Your task to perform on an android device: open app "DoorDash - Dasher" Image 0: 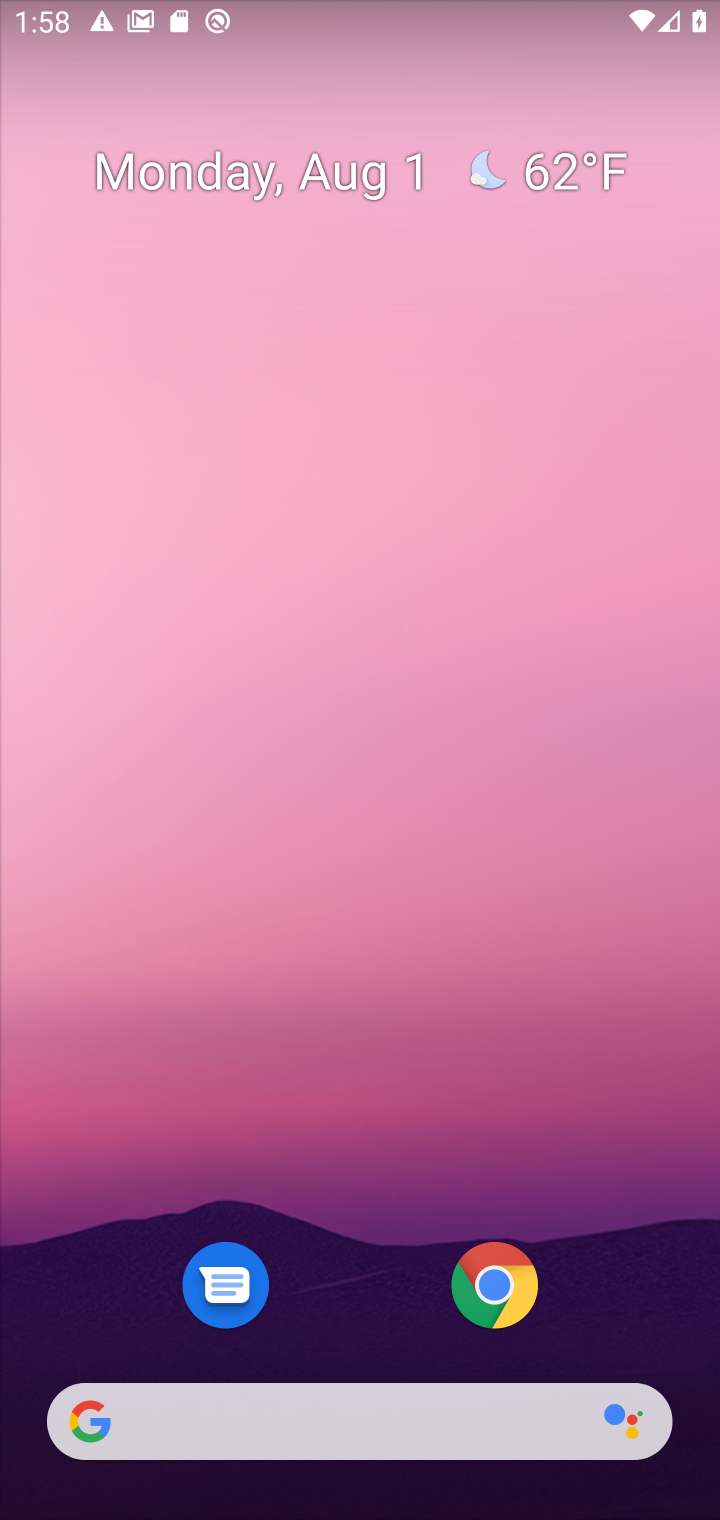
Step 0: press home button
Your task to perform on an android device: open app "DoorDash - Dasher" Image 1: 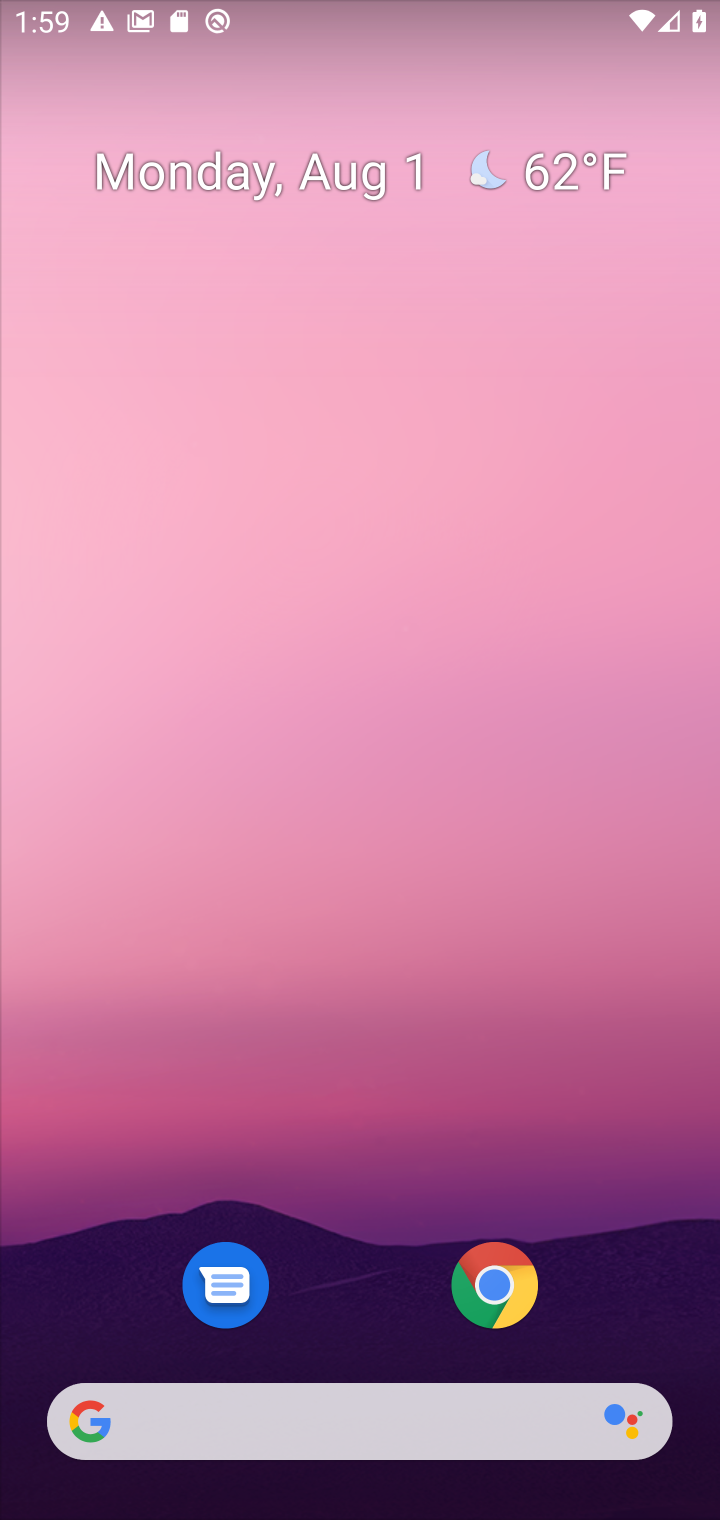
Step 1: drag from (288, 1364) to (390, 297)
Your task to perform on an android device: open app "DoorDash - Dasher" Image 2: 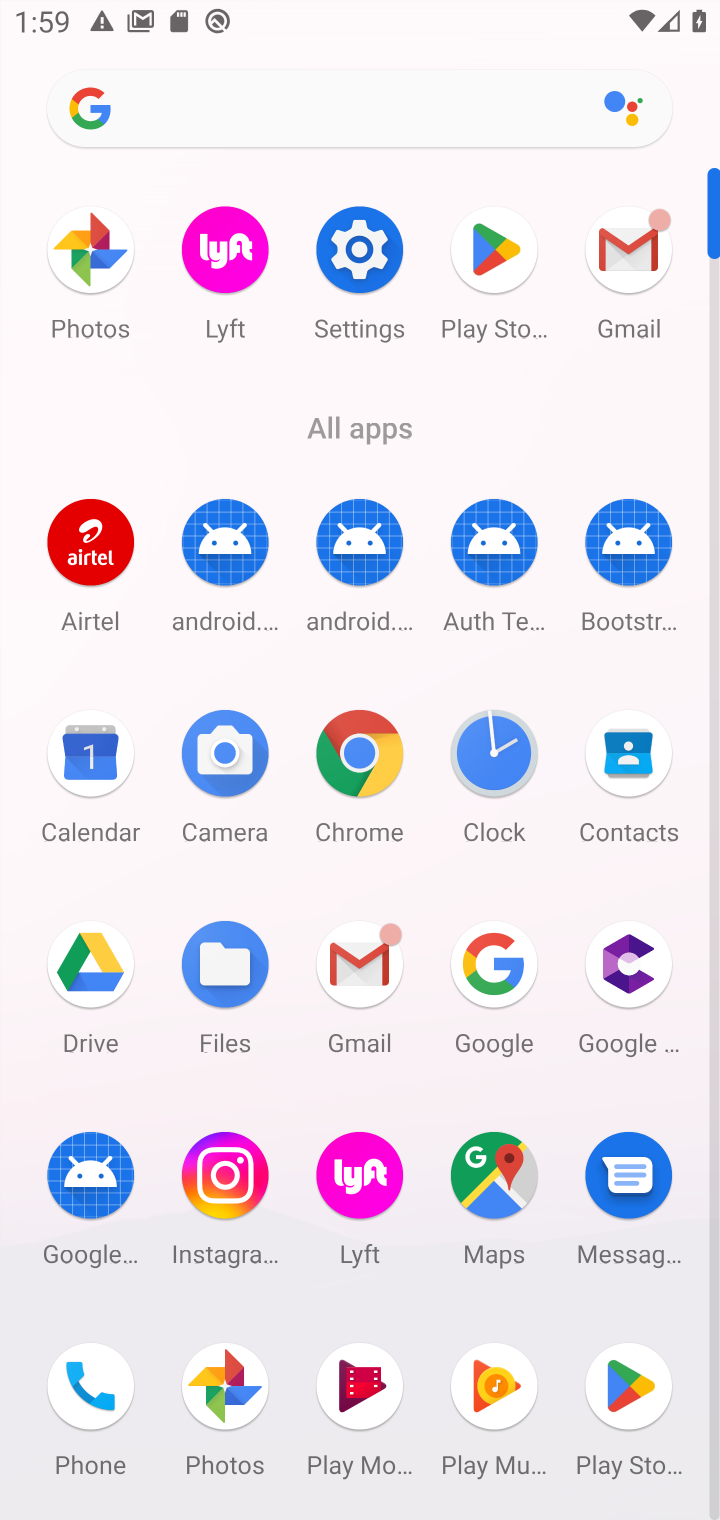
Step 2: click (497, 247)
Your task to perform on an android device: open app "DoorDash - Dasher" Image 3: 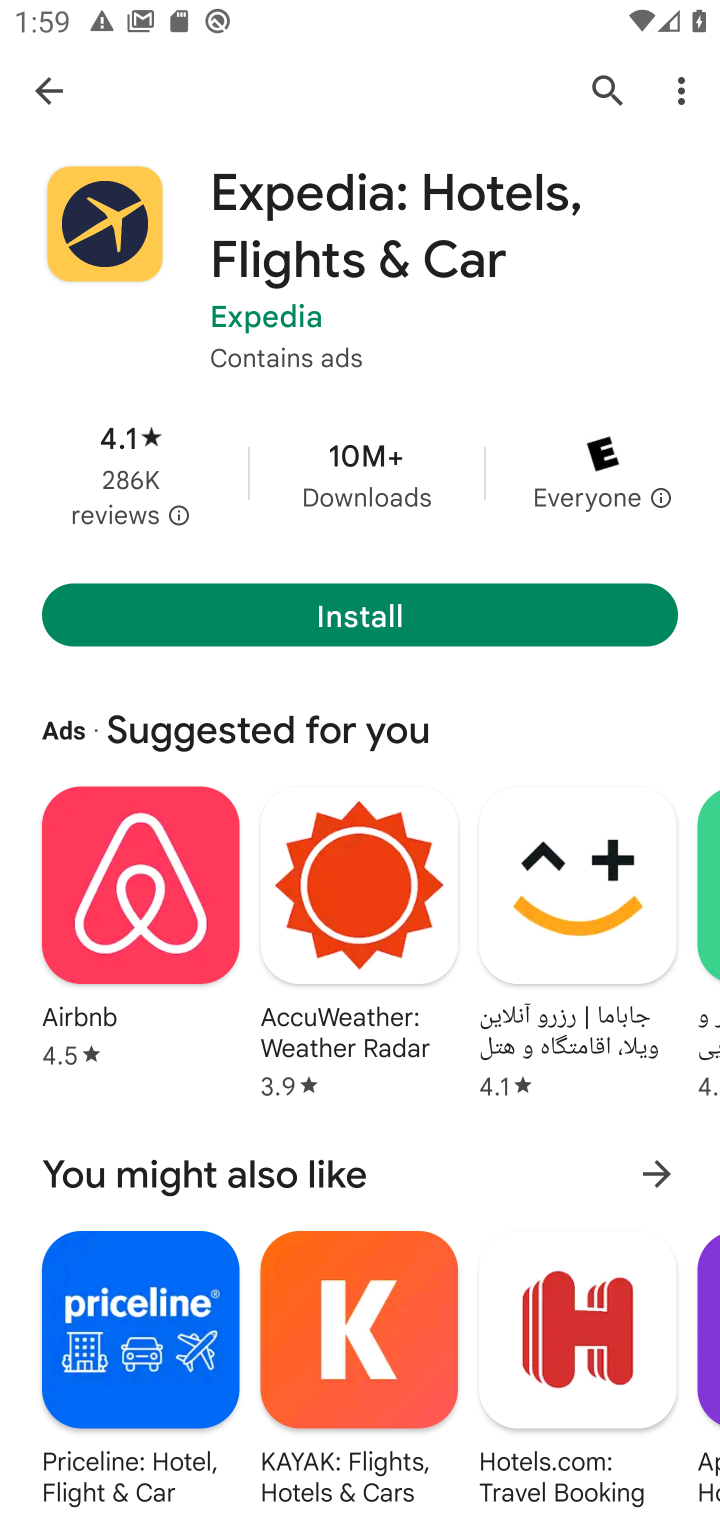
Step 3: click (44, 110)
Your task to perform on an android device: open app "DoorDash - Dasher" Image 4: 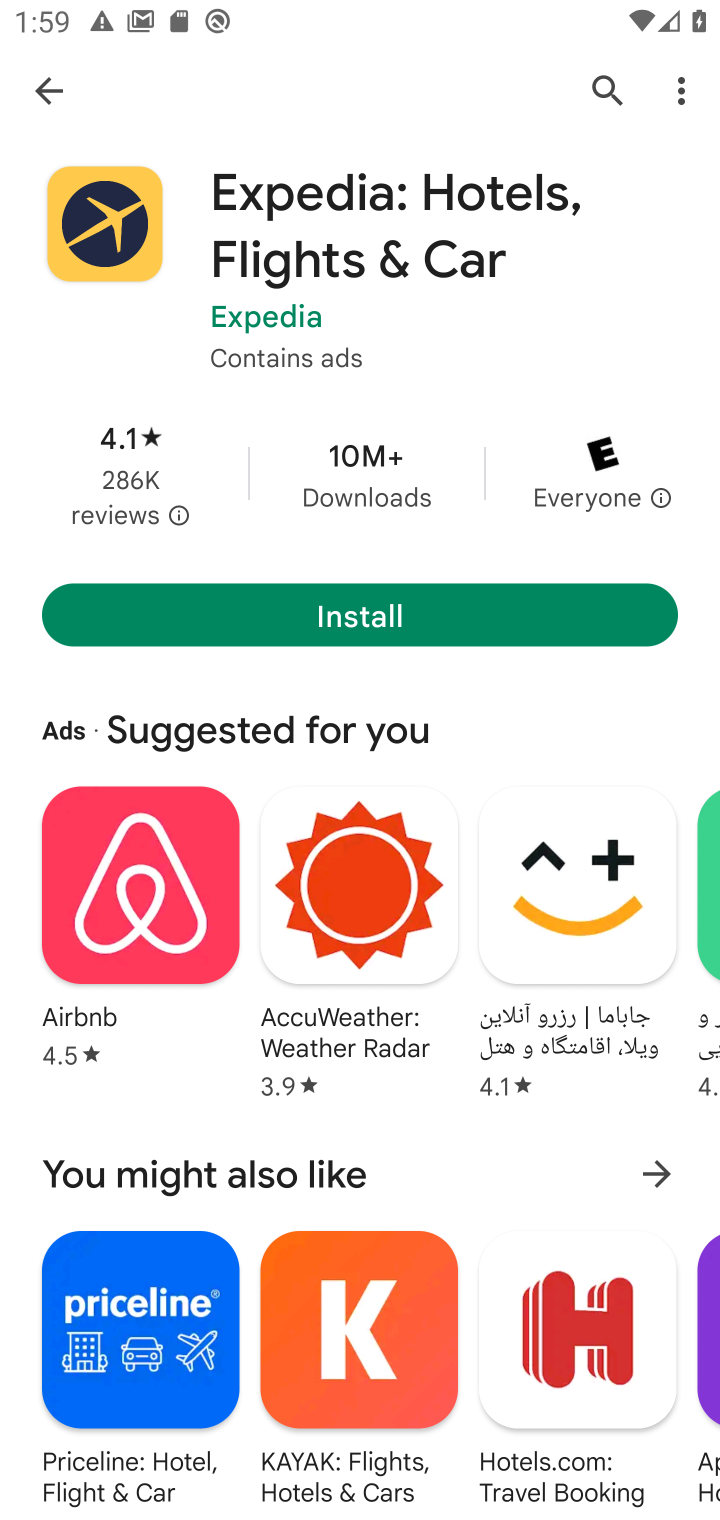
Step 4: click (45, 88)
Your task to perform on an android device: open app "DoorDash - Dasher" Image 5: 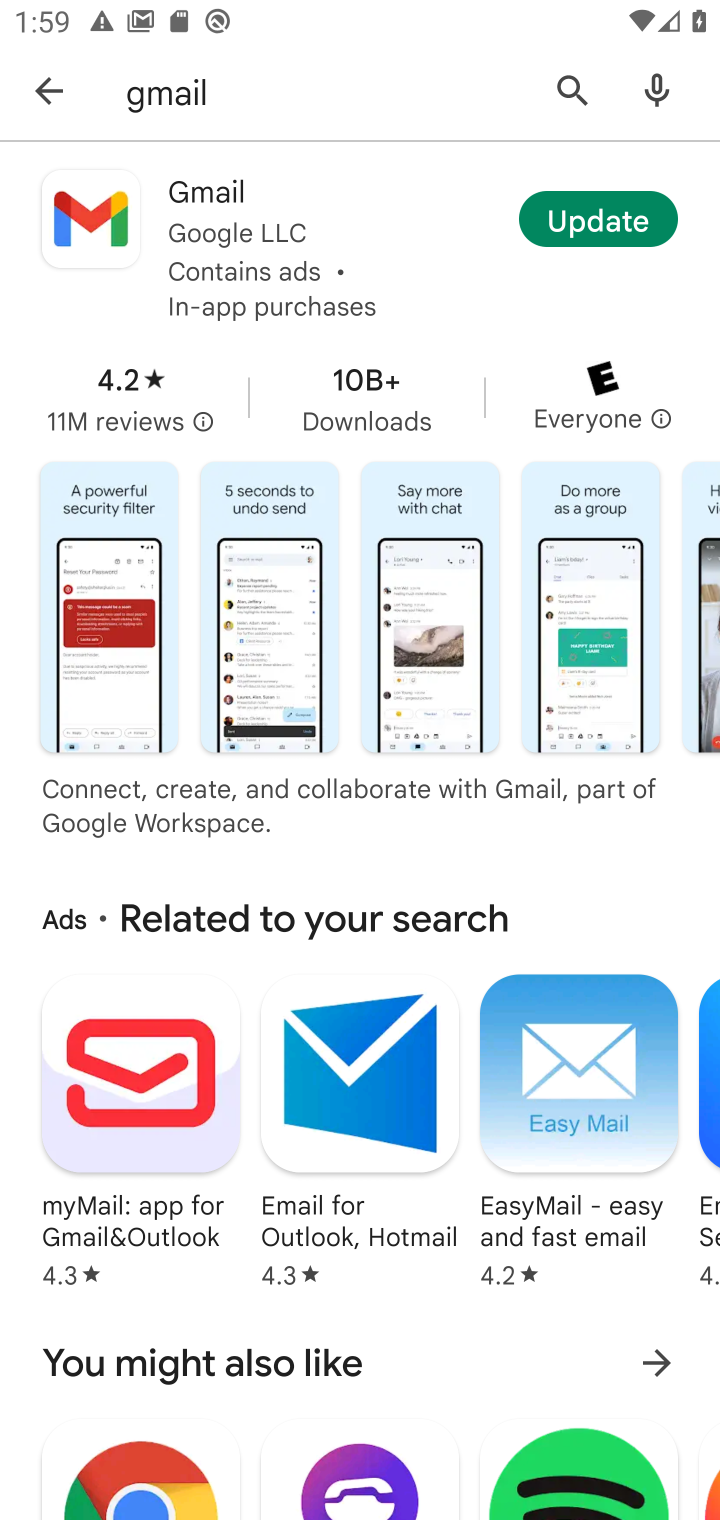
Step 5: click (574, 83)
Your task to perform on an android device: open app "DoorDash - Dasher" Image 6: 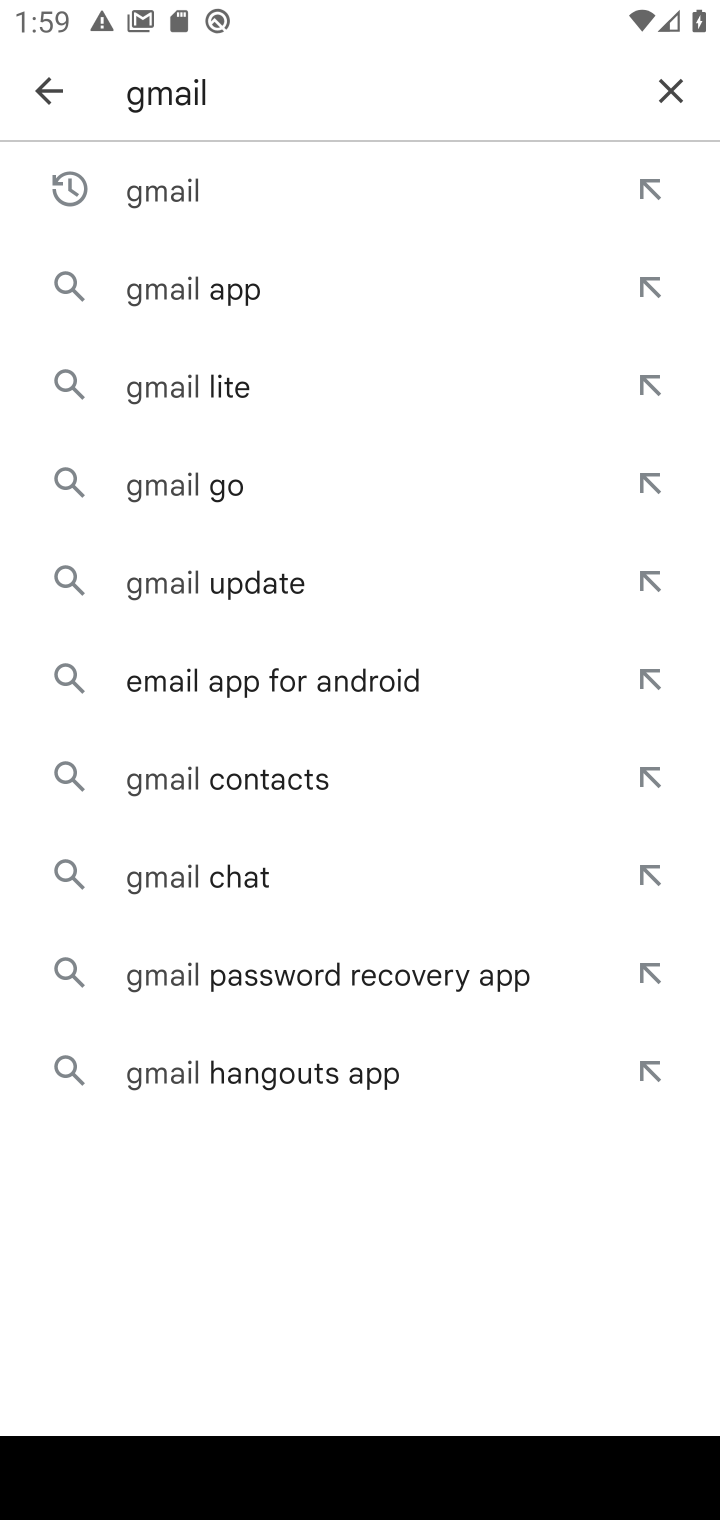
Step 6: click (682, 91)
Your task to perform on an android device: open app "DoorDash - Dasher" Image 7: 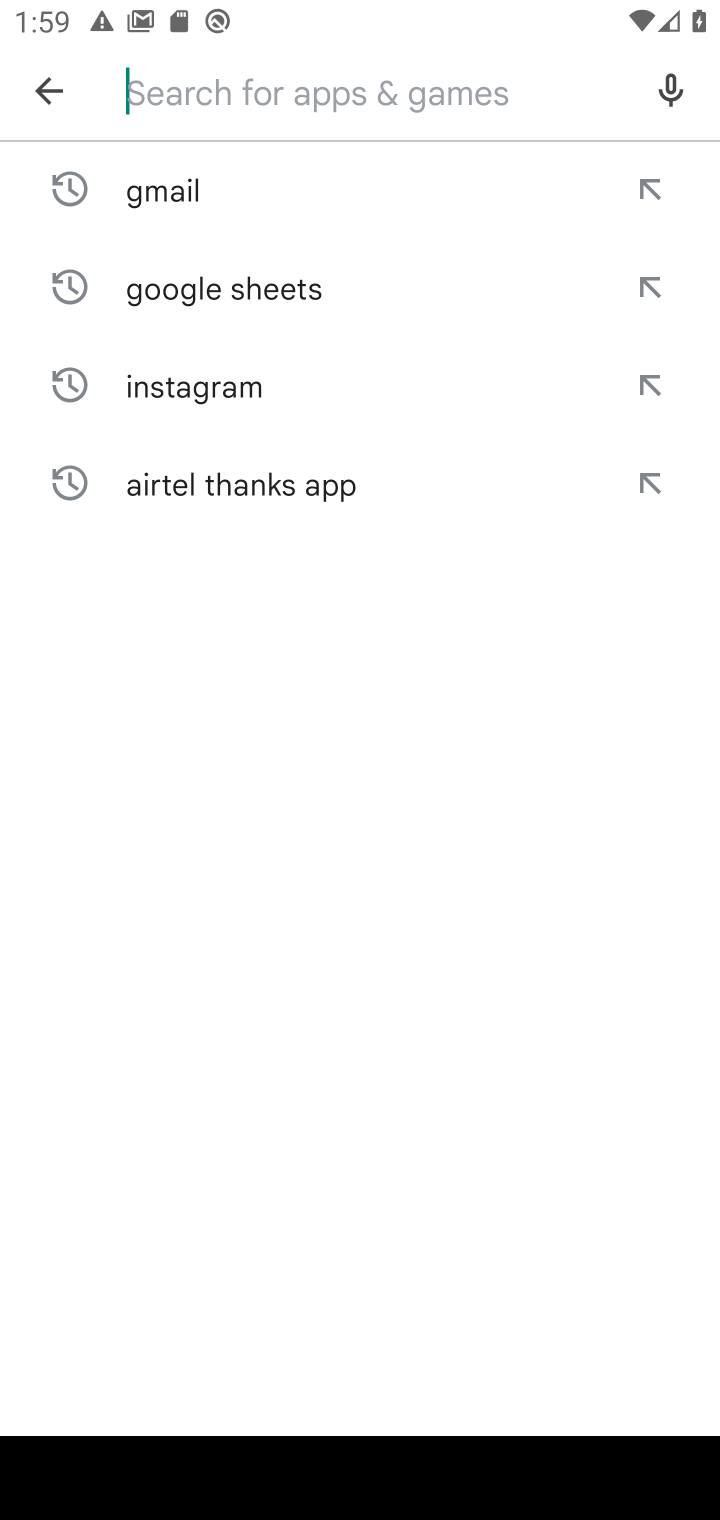
Step 7: type "DoorDash - Dasher"
Your task to perform on an android device: open app "DoorDash - Dasher" Image 8: 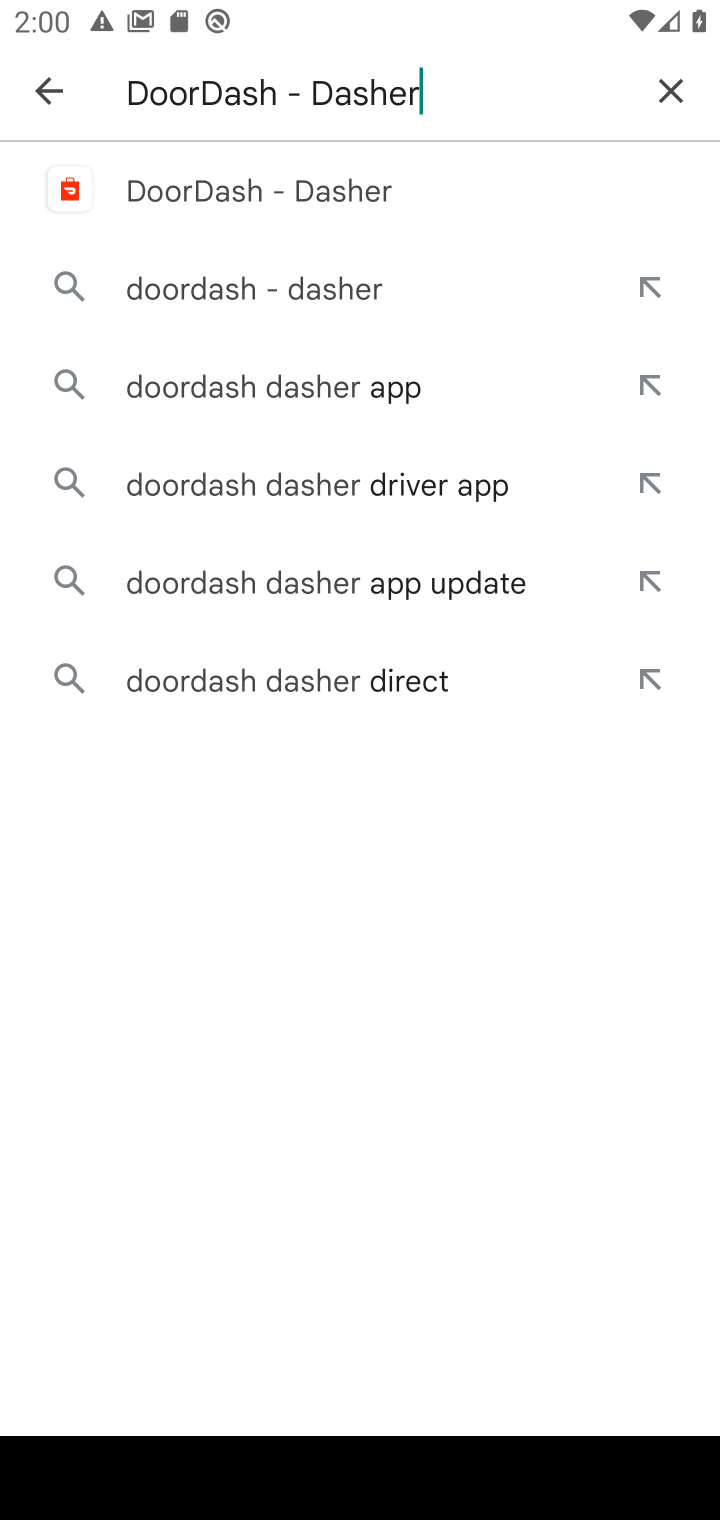
Step 8: click (323, 196)
Your task to perform on an android device: open app "DoorDash - Dasher" Image 9: 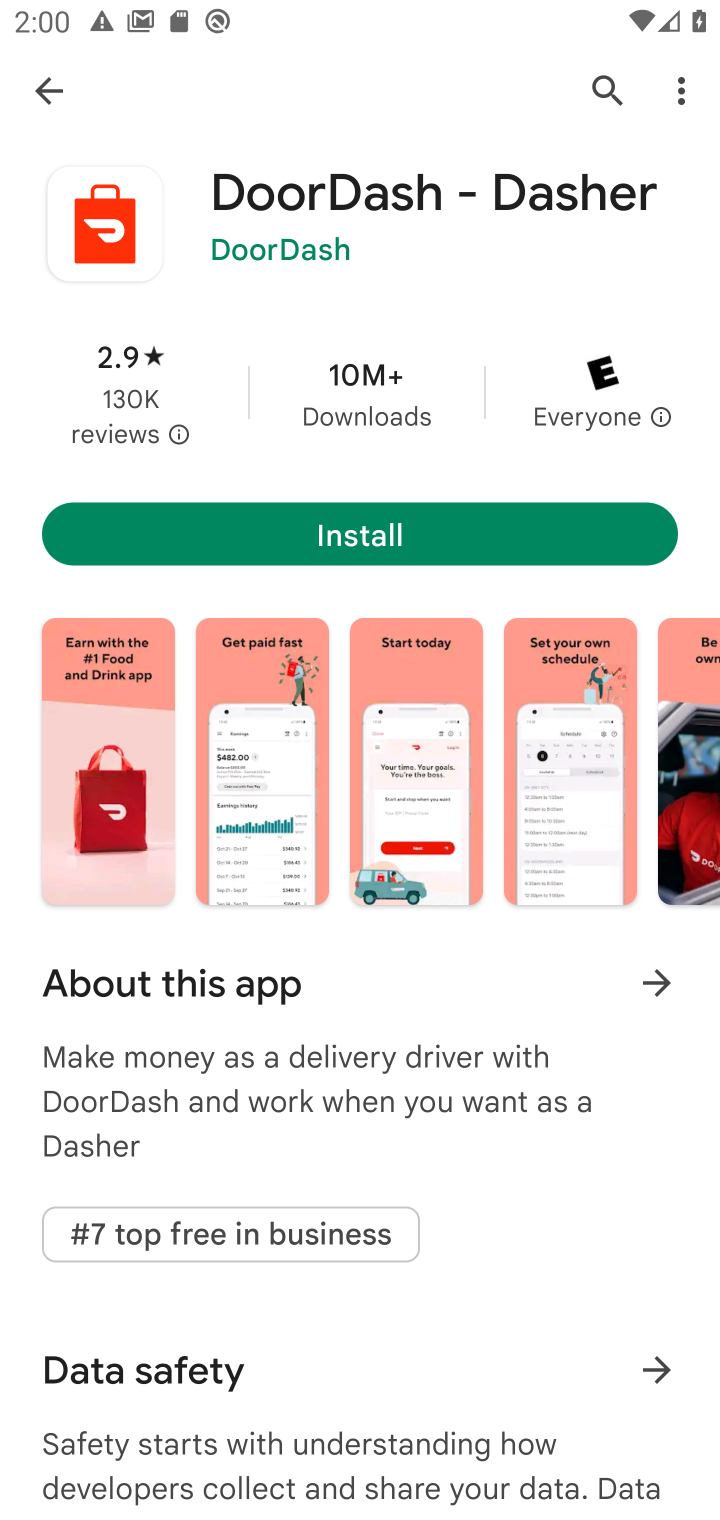
Step 9: click (332, 537)
Your task to perform on an android device: open app "DoorDash - Dasher" Image 10: 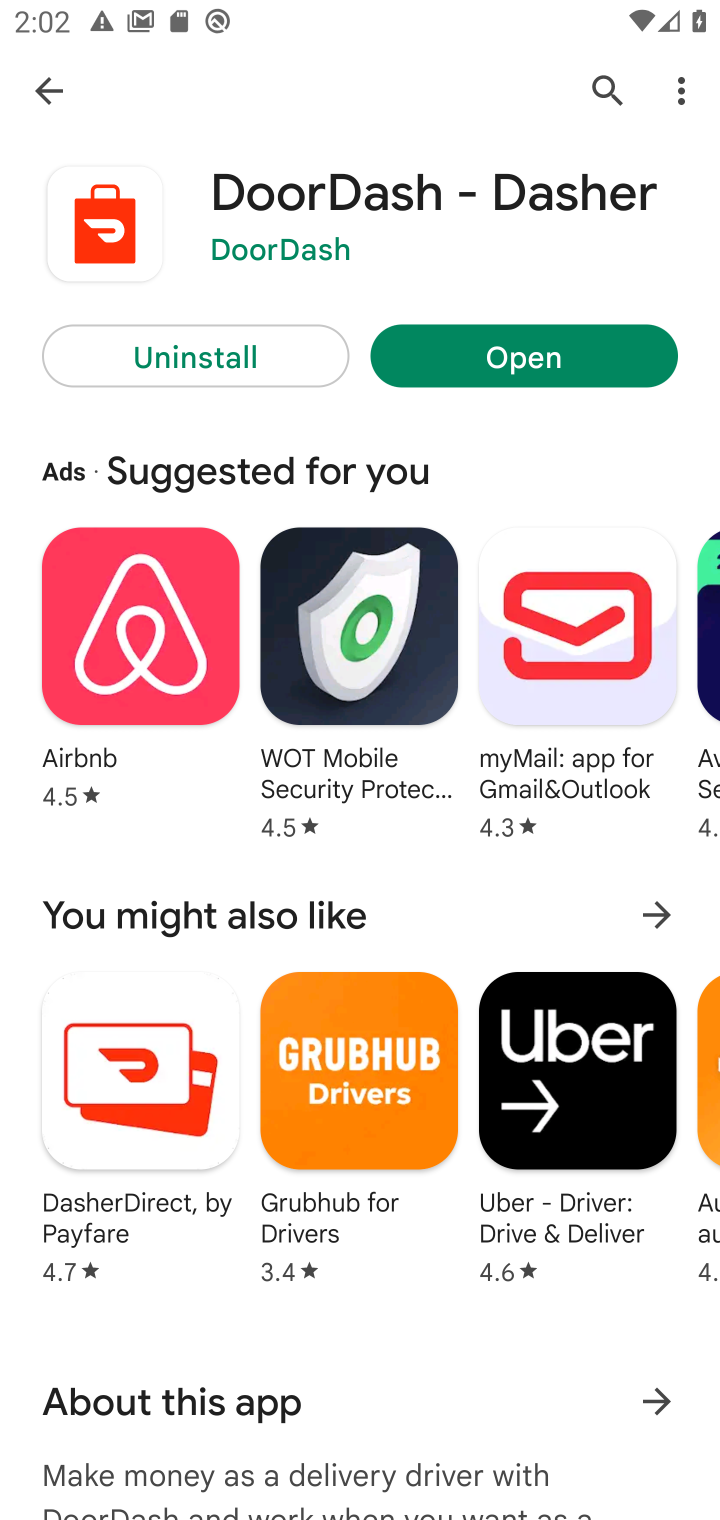
Step 10: click (533, 360)
Your task to perform on an android device: open app "DoorDash - Dasher" Image 11: 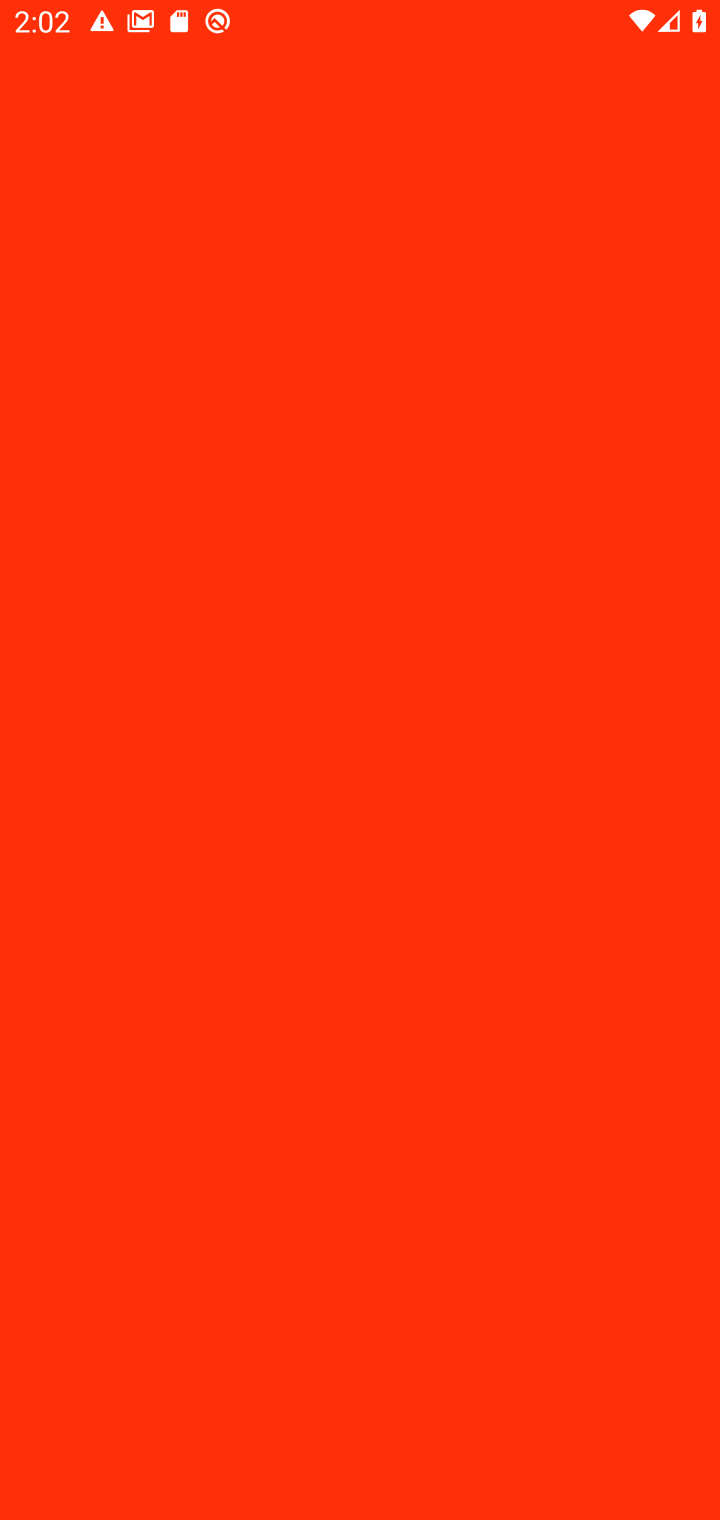
Step 11: task complete